Your task to perform on an android device: turn on sleep mode Image 0: 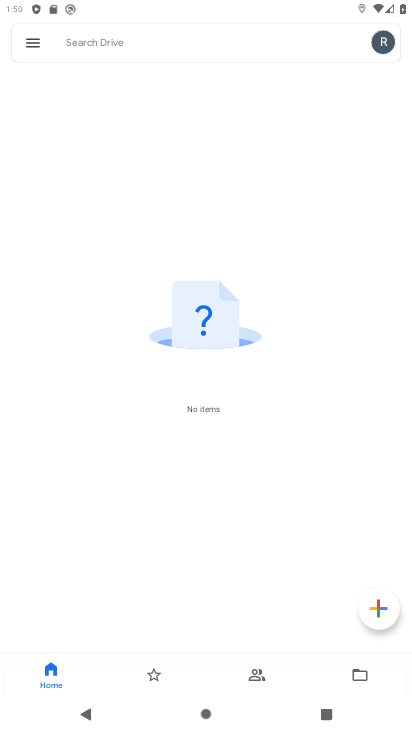
Step 0: press home button
Your task to perform on an android device: turn on sleep mode Image 1: 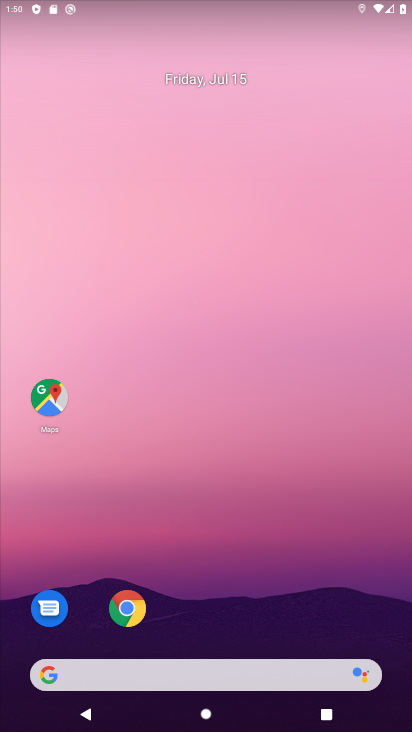
Step 1: drag from (214, 664) to (118, 239)
Your task to perform on an android device: turn on sleep mode Image 2: 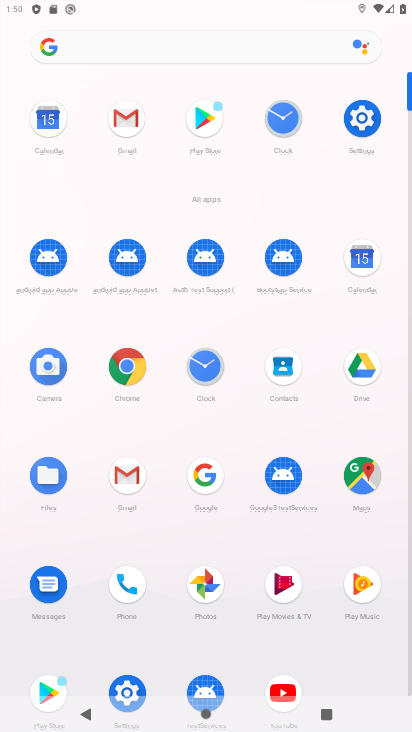
Step 2: click (374, 114)
Your task to perform on an android device: turn on sleep mode Image 3: 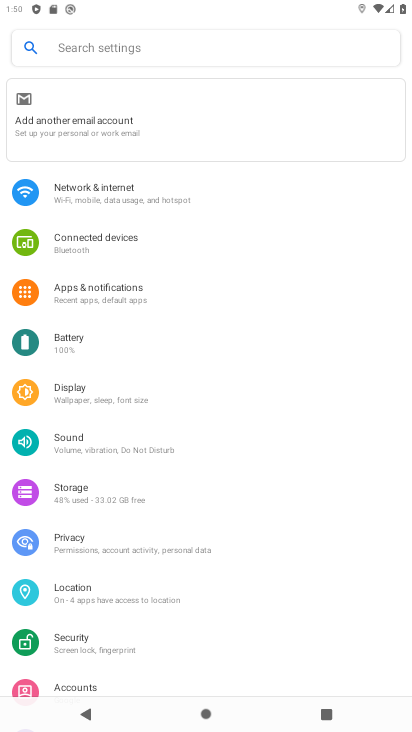
Step 3: click (103, 393)
Your task to perform on an android device: turn on sleep mode Image 4: 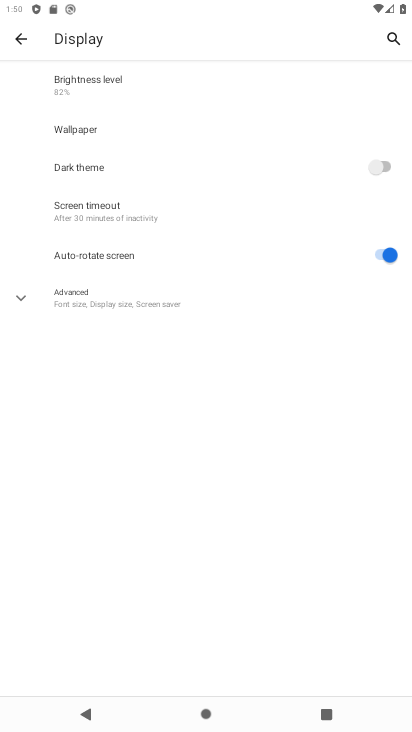
Step 4: click (107, 317)
Your task to perform on an android device: turn on sleep mode Image 5: 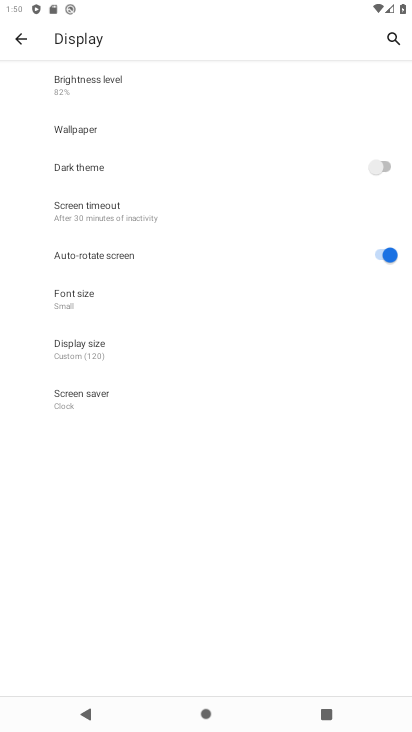
Step 5: task complete